Your task to perform on an android device: Open settings Image 0: 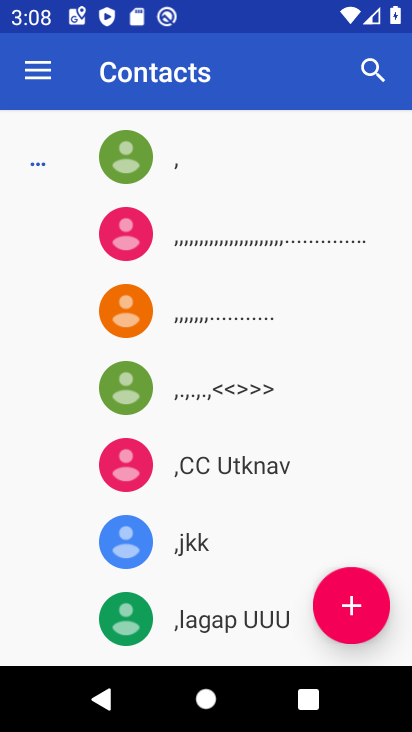
Step 0: press back button
Your task to perform on an android device: Open settings Image 1: 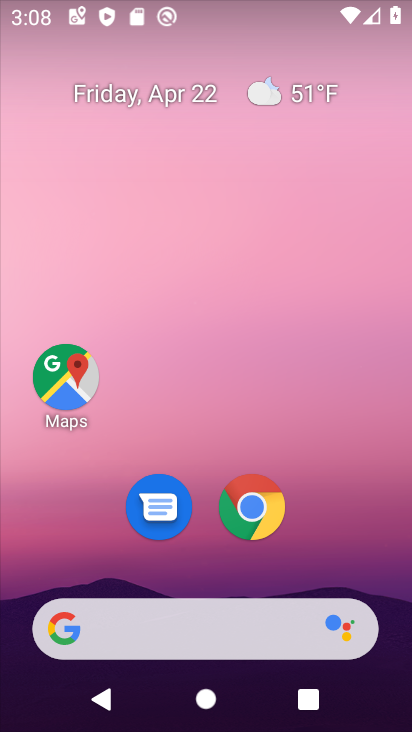
Step 1: drag from (162, 575) to (234, 38)
Your task to perform on an android device: Open settings Image 2: 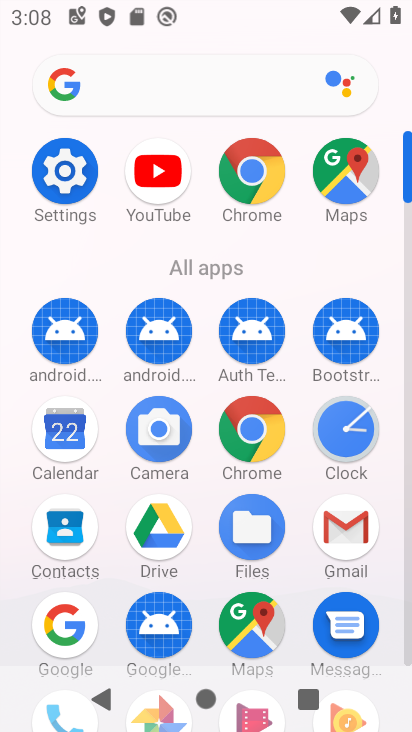
Step 2: click (67, 167)
Your task to perform on an android device: Open settings Image 3: 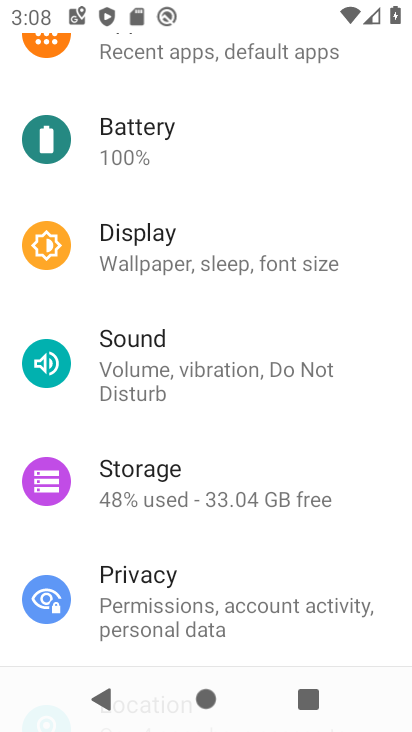
Step 3: task complete